Your task to perform on an android device: Go to eBay Image 0: 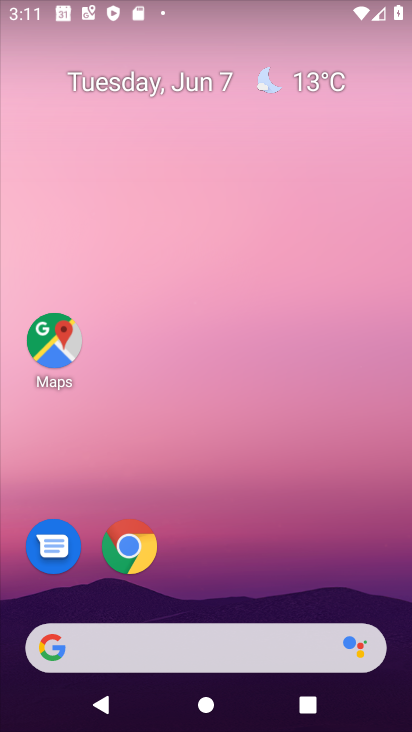
Step 0: click (102, 536)
Your task to perform on an android device: Go to eBay Image 1: 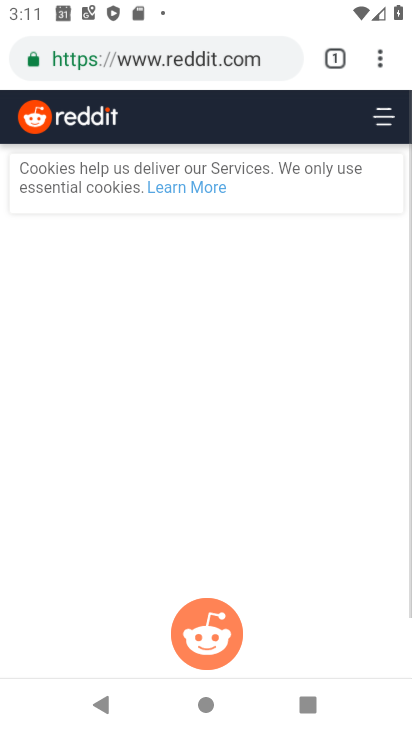
Step 1: click (322, 58)
Your task to perform on an android device: Go to eBay Image 2: 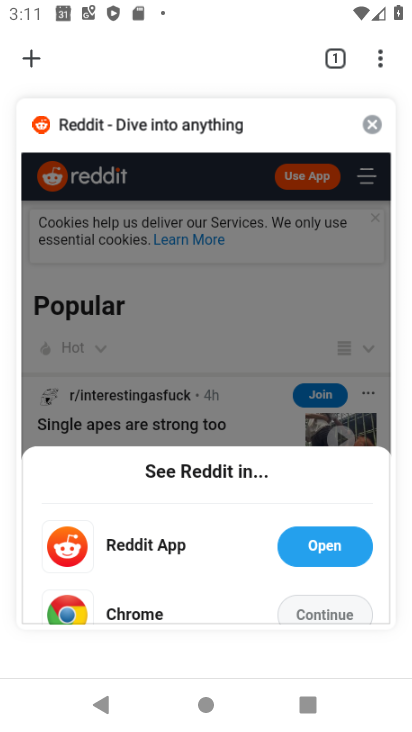
Step 2: click (374, 127)
Your task to perform on an android device: Go to eBay Image 3: 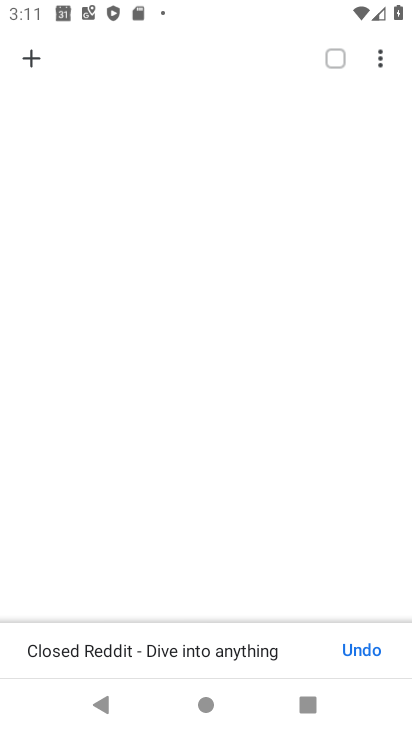
Step 3: click (23, 56)
Your task to perform on an android device: Go to eBay Image 4: 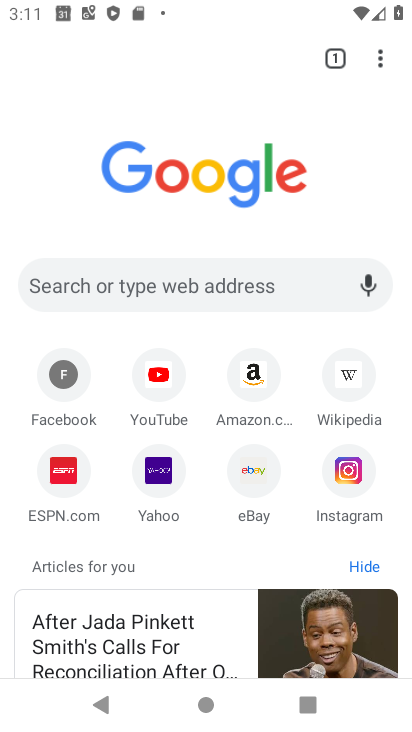
Step 4: click (255, 475)
Your task to perform on an android device: Go to eBay Image 5: 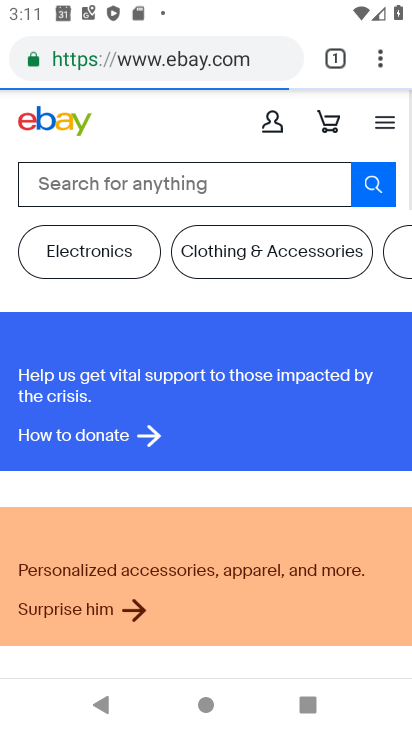
Step 5: task complete